Your task to perform on an android device: search for starred emails in the gmail app Image 0: 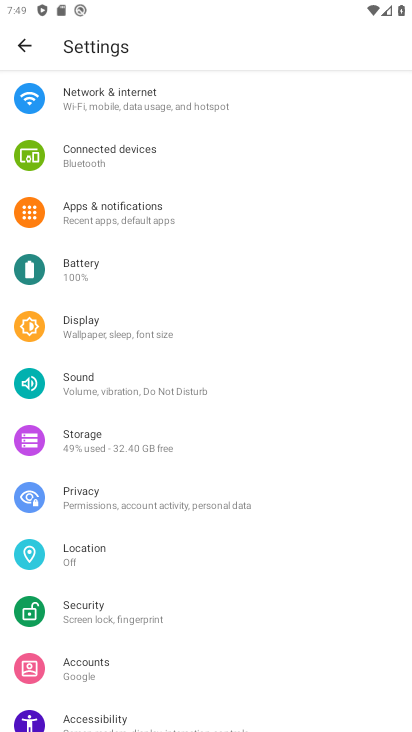
Step 0: drag from (157, 513) to (167, 702)
Your task to perform on an android device: search for starred emails in the gmail app Image 1: 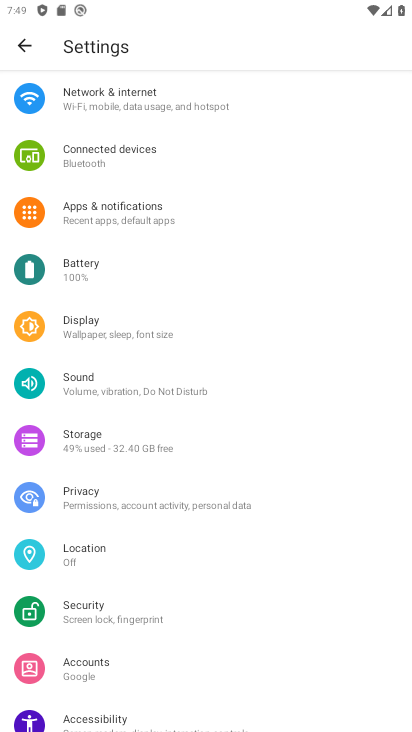
Step 1: press home button
Your task to perform on an android device: search for starred emails in the gmail app Image 2: 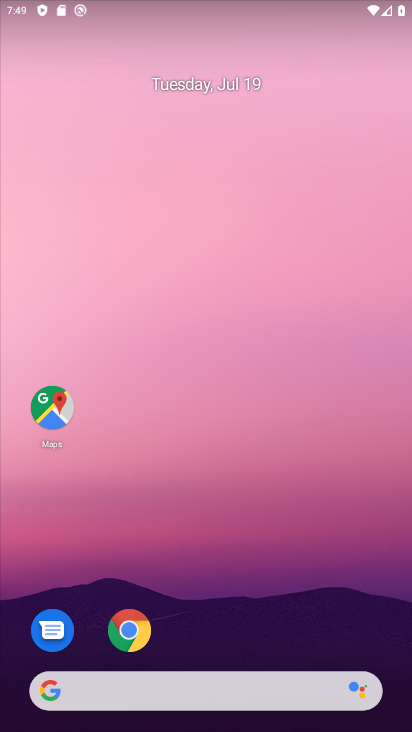
Step 2: drag from (215, 707) to (215, 250)
Your task to perform on an android device: search for starred emails in the gmail app Image 3: 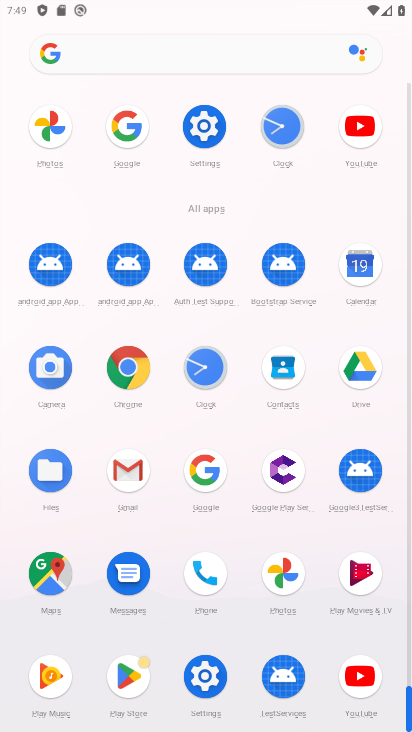
Step 3: click (141, 485)
Your task to perform on an android device: search for starred emails in the gmail app Image 4: 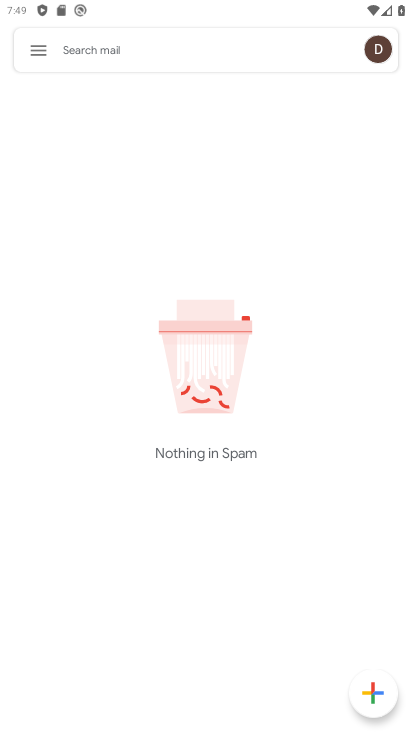
Step 4: click (43, 59)
Your task to perform on an android device: search for starred emails in the gmail app Image 5: 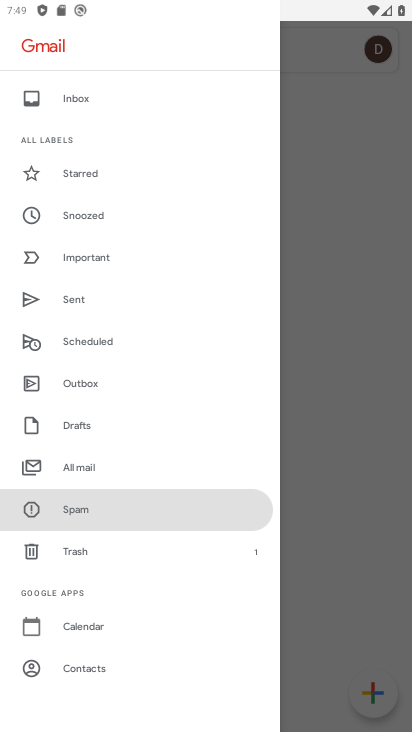
Step 5: click (95, 176)
Your task to perform on an android device: search for starred emails in the gmail app Image 6: 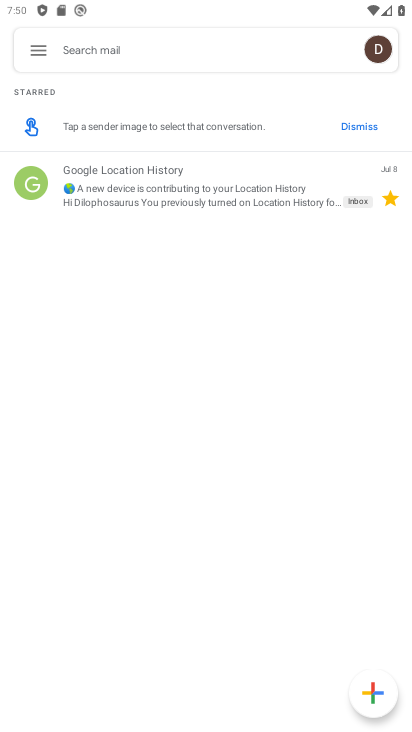
Step 6: task complete